Your task to perform on an android device: Open sound settings Image 0: 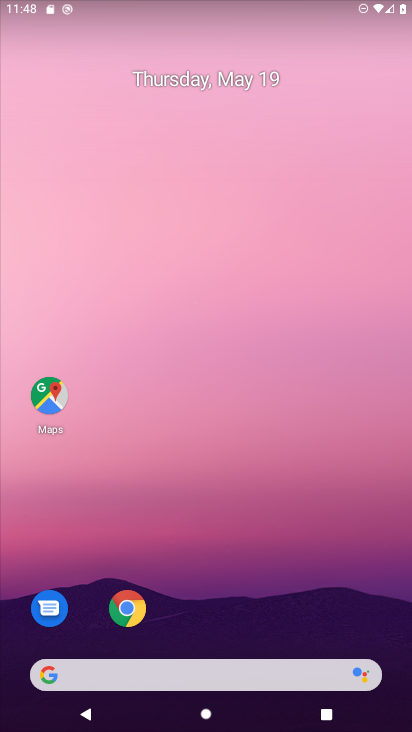
Step 0: press home button
Your task to perform on an android device: Open sound settings Image 1: 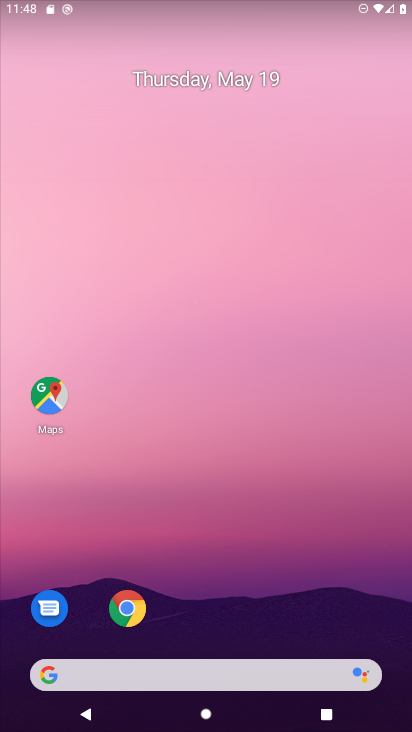
Step 1: drag from (242, 615) to (263, 160)
Your task to perform on an android device: Open sound settings Image 2: 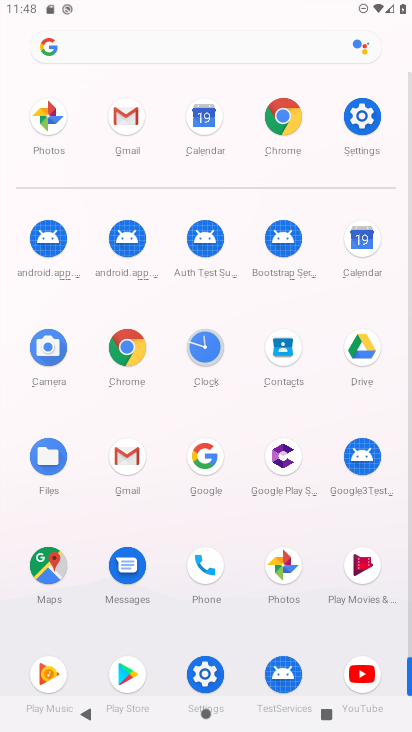
Step 2: click (362, 121)
Your task to perform on an android device: Open sound settings Image 3: 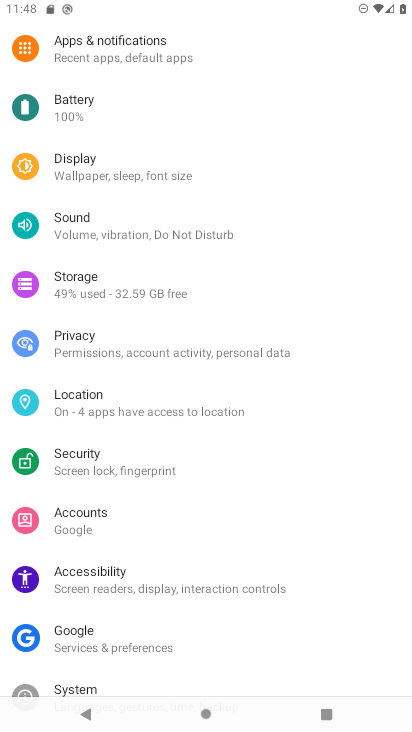
Step 3: click (85, 215)
Your task to perform on an android device: Open sound settings Image 4: 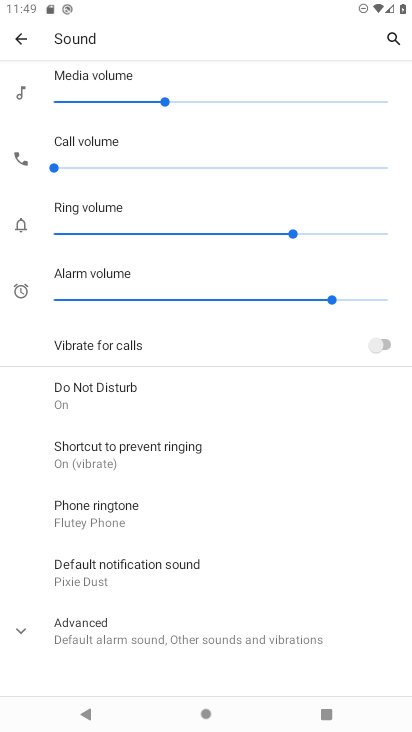
Step 4: task complete